Your task to perform on an android device: Go to Reddit.com Image 0: 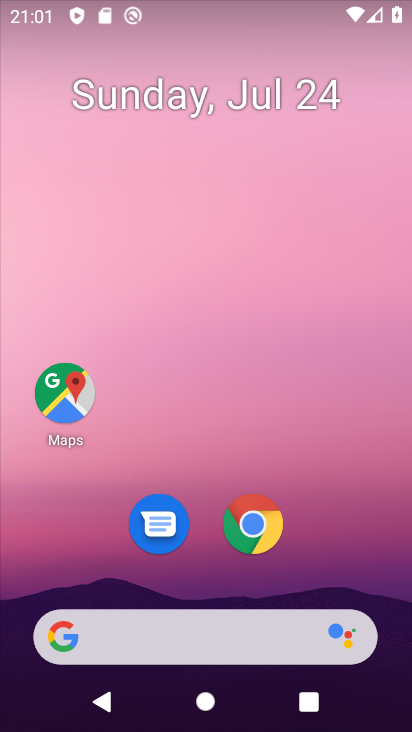
Step 0: press home button
Your task to perform on an android device: Go to Reddit.com Image 1: 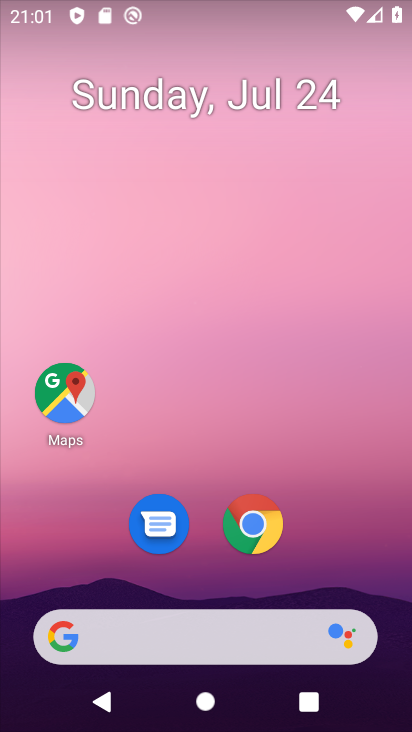
Step 1: click (253, 532)
Your task to perform on an android device: Go to Reddit.com Image 2: 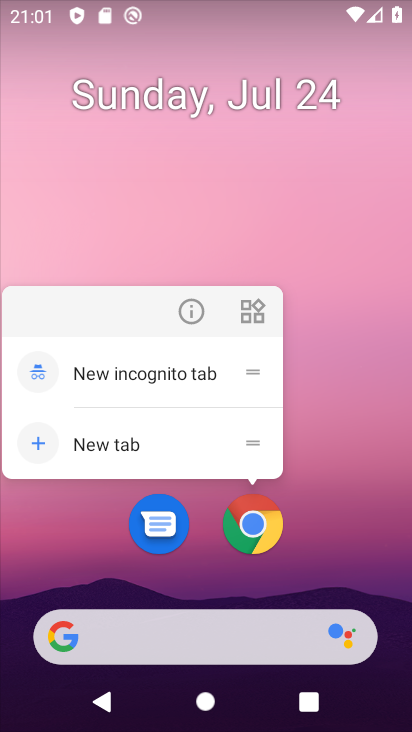
Step 2: click (258, 524)
Your task to perform on an android device: Go to Reddit.com Image 3: 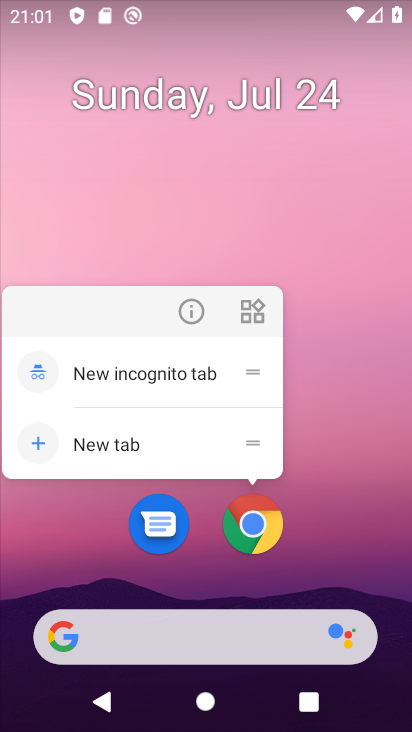
Step 3: click (258, 525)
Your task to perform on an android device: Go to Reddit.com Image 4: 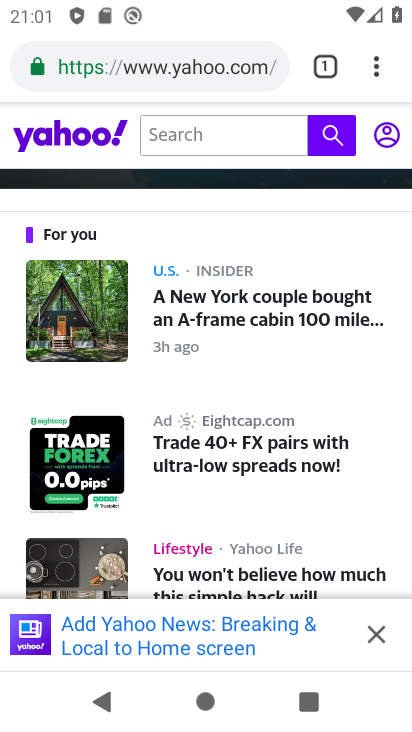
Step 4: drag from (375, 73) to (274, 137)
Your task to perform on an android device: Go to Reddit.com Image 5: 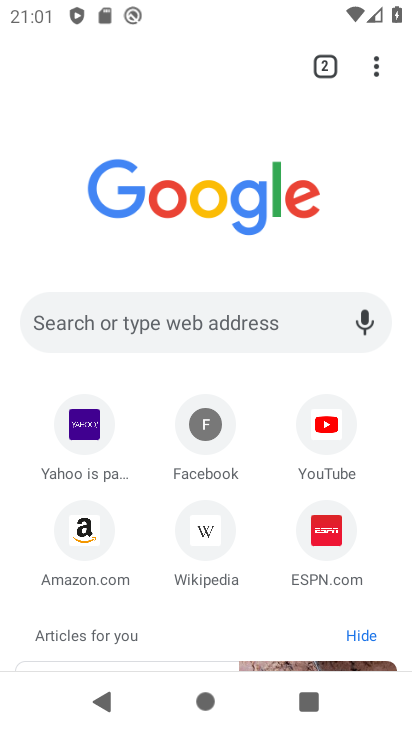
Step 5: click (127, 319)
Your task to perform on an android device: Go to Reddit.com Image 6: 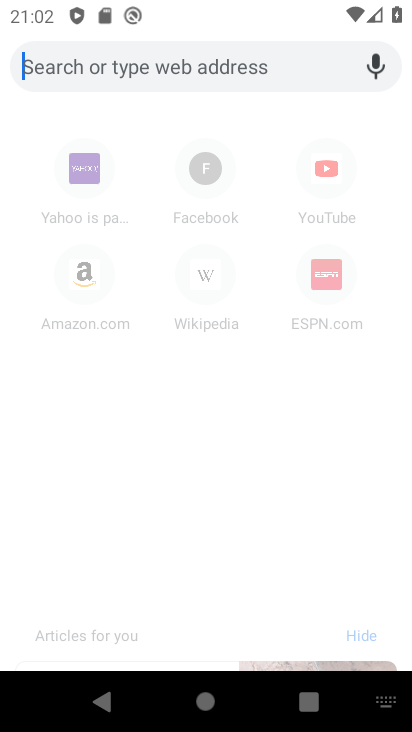
Step 6: type "reddit.com"
Your task to perform on an android device: Go to Reddit.com Image 7: 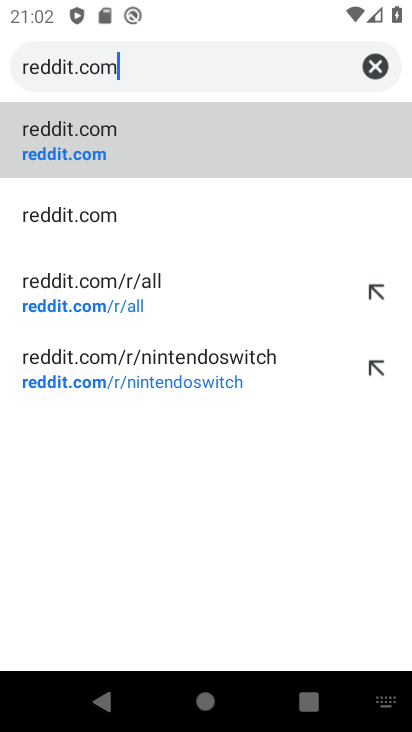
Step 7: click (97, 143)
Your task to perform on an android device: Go to Reddit.com Image 8: 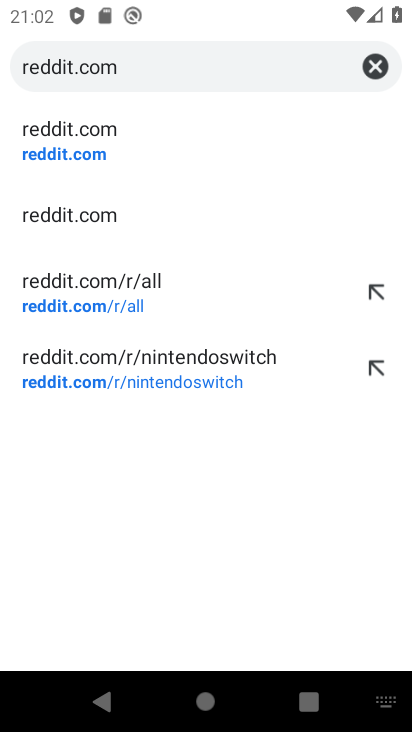
Step 8: click (117, 138)
Your task to perform on an android device: Go to Reddit.com Image 9: 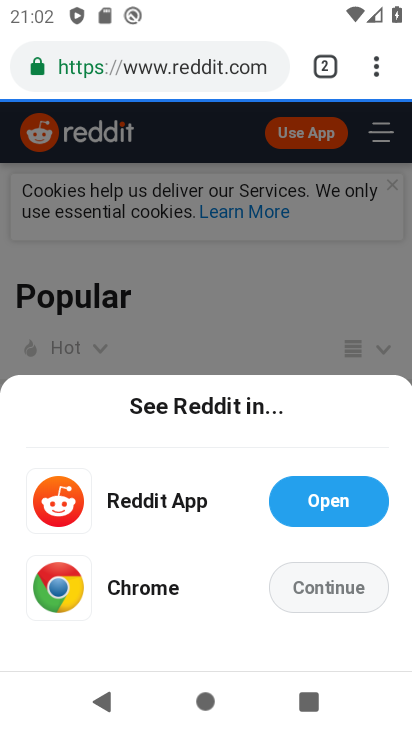
Step 9: task complete